Your task to perform on an android device: Open the map Image 0: 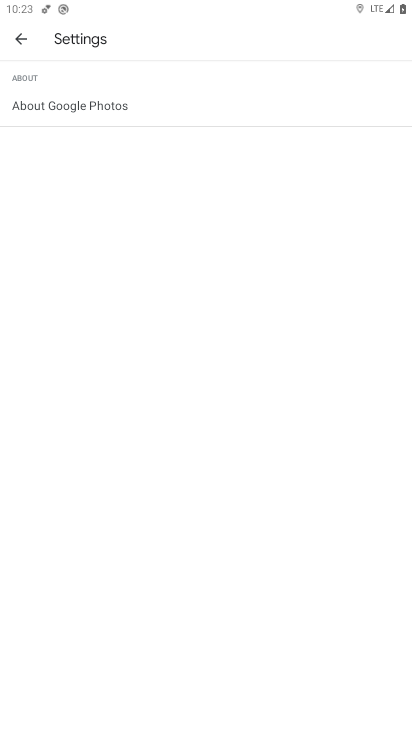
Step 0: press home button
Your task to perform on an android device: Open the map Image 1: 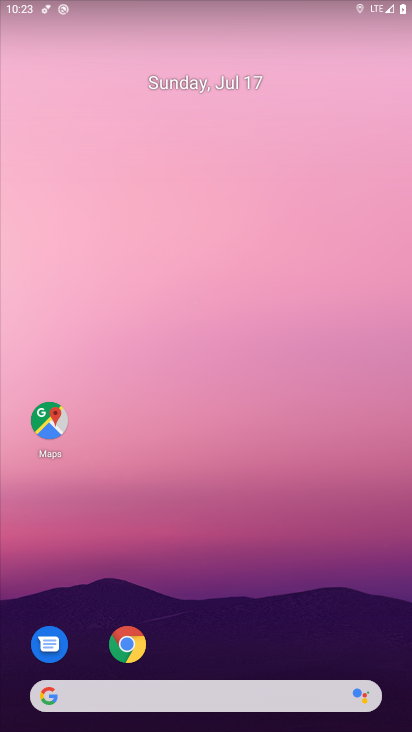
Step 1: click (44, 411)
Your task to perform on an android device: Open the map Image 2: 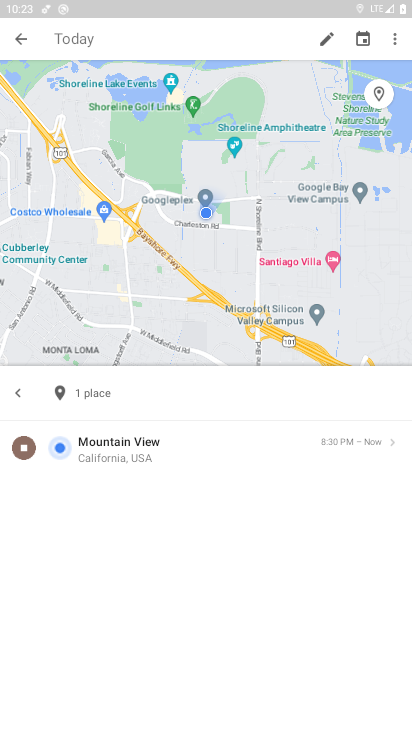
Step 2: click (14, 36)
Your task to perform on an android device: Open the map Image 3: 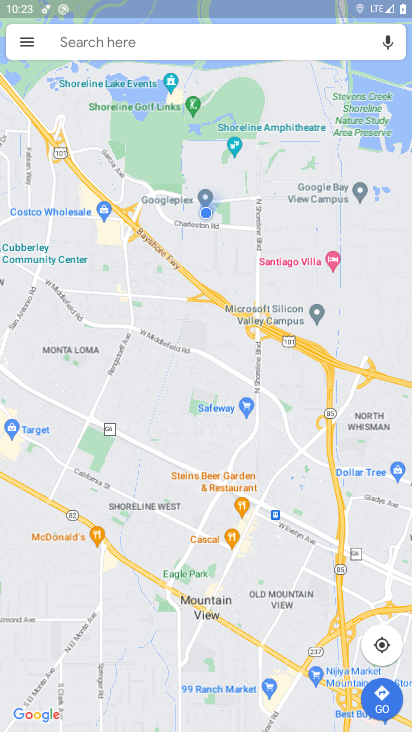
Step 3: task complete